Your task to perform on an android device: move an email to a new category in the gmail app Image 0: 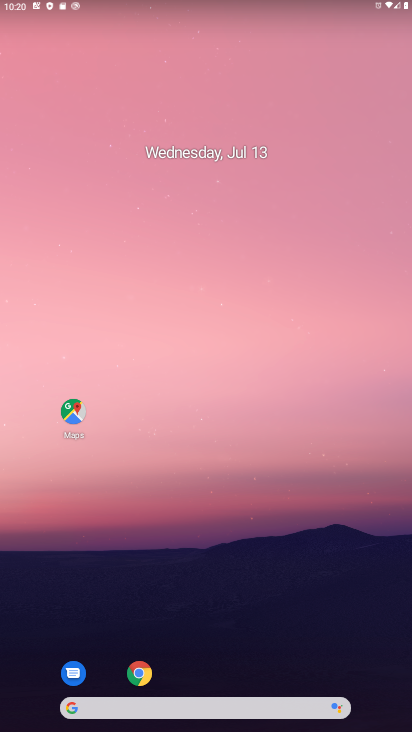
Step 0: drag from (186, 688) to (155, 121)
Your task to perform on an android device: move an email to a new category in the gmail app Image 1: 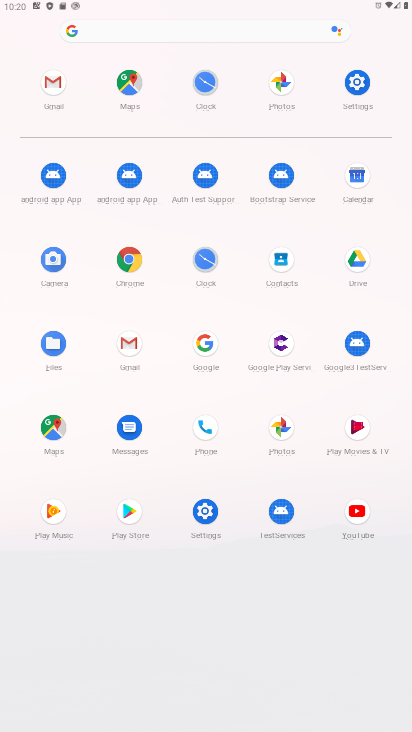
Step 1: click (64, 84)
Your task to perform on an android device: move an email to a new category in the gmail app Image 2: 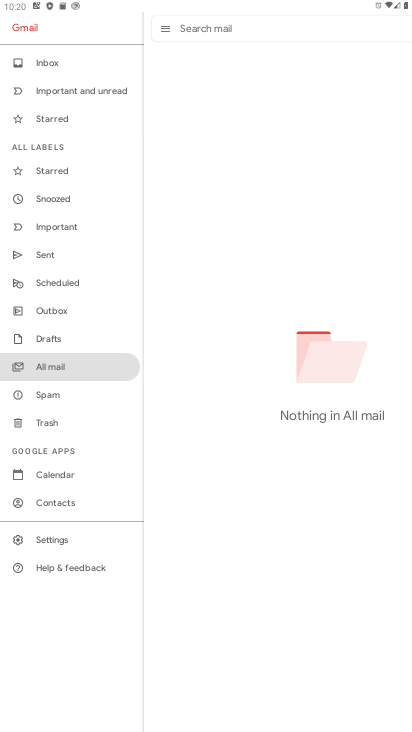
Step 2: task complete